Your task to perform on an android device: add a contact Image 0: 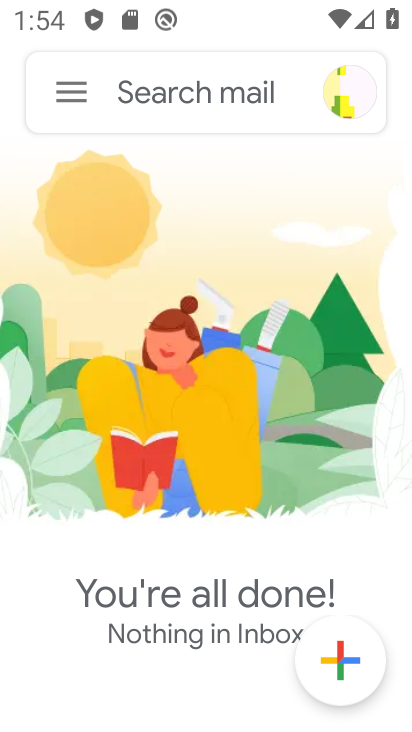
Step 0: press back button
Your task to perform on an android device: add a contact Image 1: 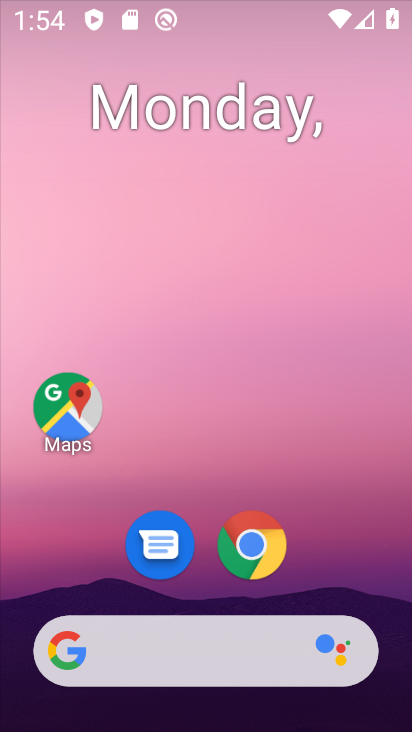
Step 1: press back button
Your task to perform on an android device: add a contact Image 2: 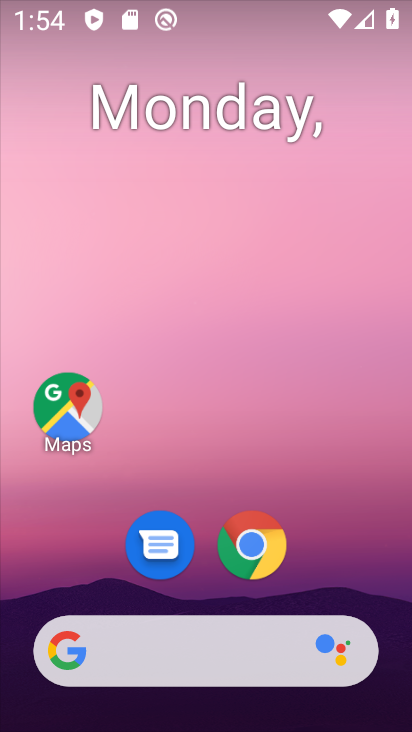
Step 2: drag from (215, 419) to (296, 54)
Your task to perform on an android device: add a contact Image 3: 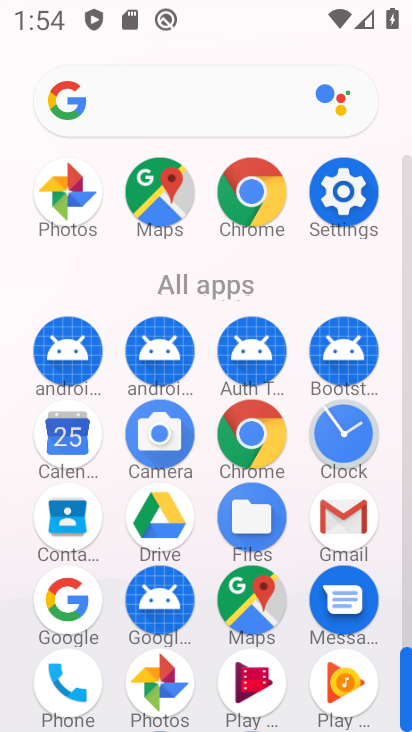
Step 3: click (68, 522)
Your task to perform on an android device: add a contact Image 4: 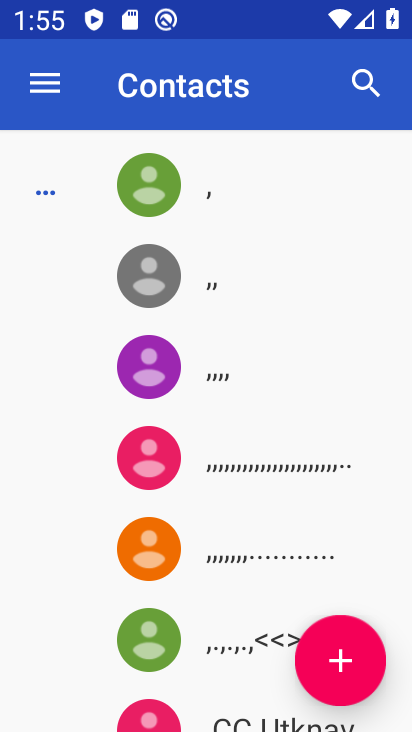
Step 4: click (326, 658)
Your task to perform on an android device: add a contact Image 5: 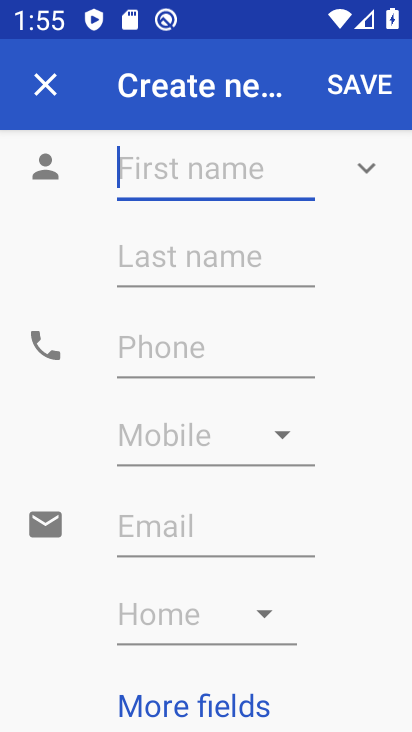
Step 5: click (171, 177)
Your task to perform on an android device: add a contact Image 6: 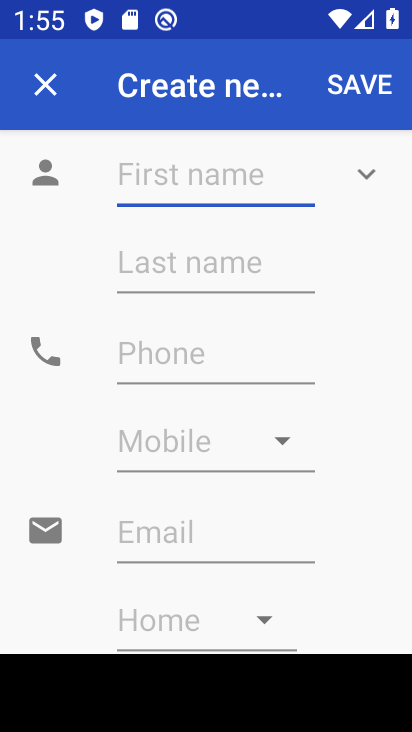
Step 6: type "fvfv"
Your task to perform on an android device: add a contact Image 7: 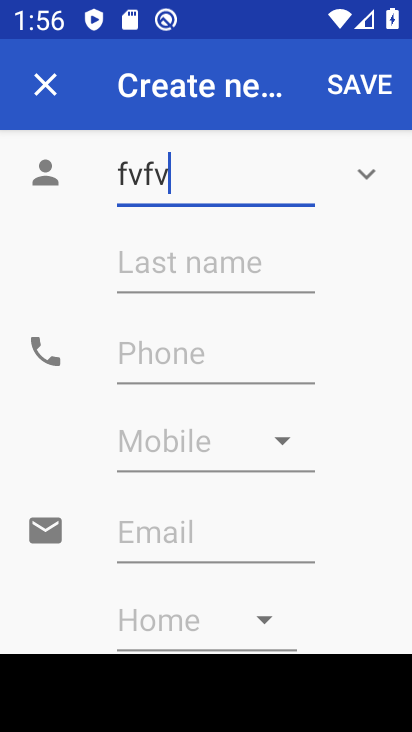
Step 7: click (147, 358)
Your task to perform on an android device: add a contact Image 8: 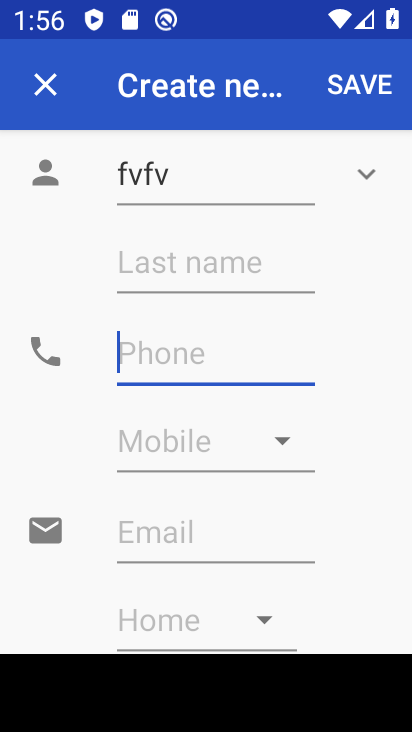
Step 8: type "5656"
Your task to perform on an android device: add a contact Image 9: 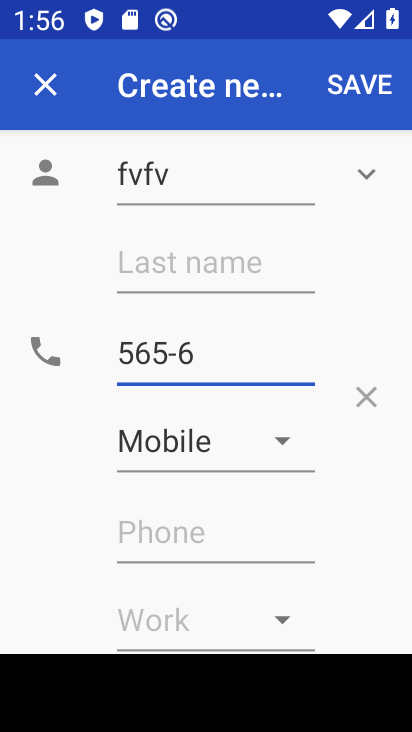
Step 9: click (348, 76)
Your task to perform on an android device: add a contact Image 10: 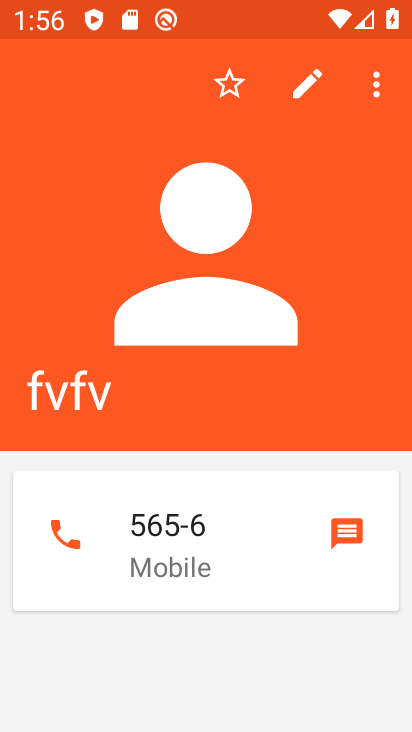
Step 10: task complete